Your task to perform on an android device: open app "Airtel Thanks" Image 0: 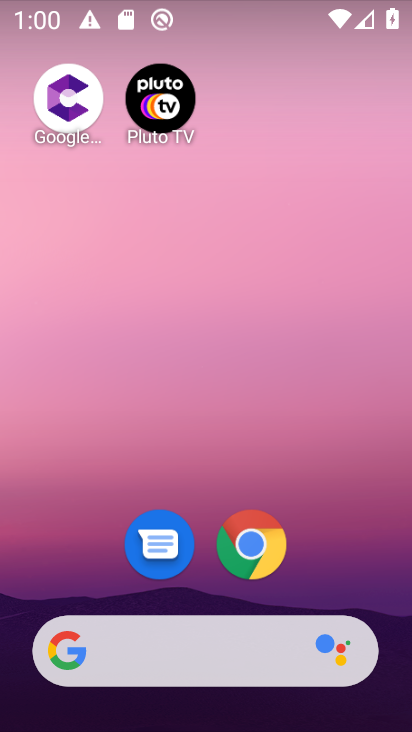
Step 0: drag from (366, 479) to (329, 24)
Your task to perform on an android device: open app "Airtel Thanks" Image 1: 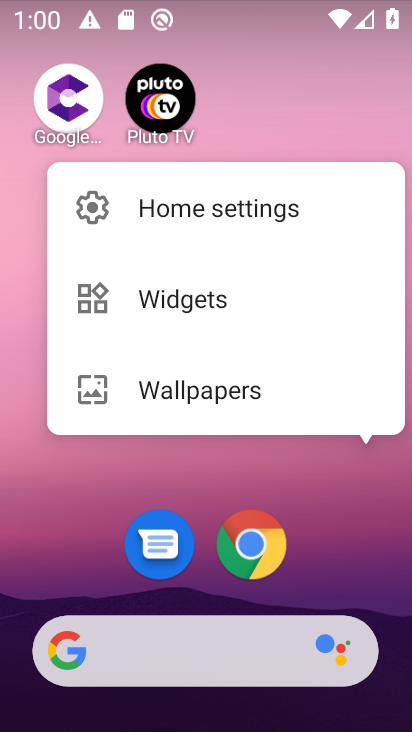
Step 1: press home button
Your task to perform on an android device: open app "Airtel Thanks" Image 2: 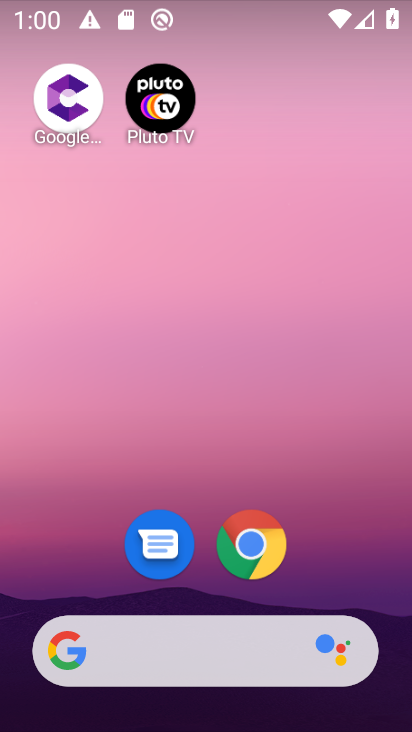
Step 2: drag from (383, 608) to (240, 44)
Your task to perform on an android device: open app "Airtel Thanks" Image 3: 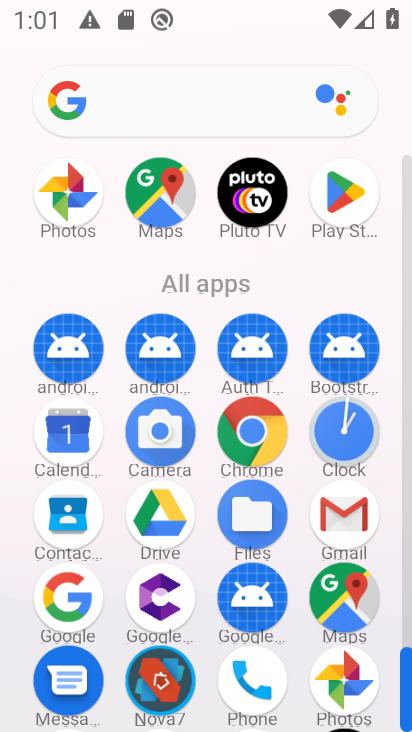
Step 3: click (343, 182)
Your task to perform on an android device: open app "Airtel Thanks" Image 4: 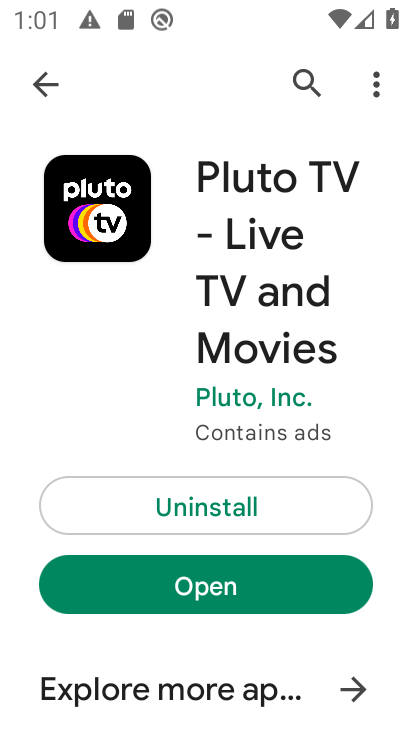
Step 4: press back button
Your task to perform on an android device: open app "Airtel Thanks" Image 5: 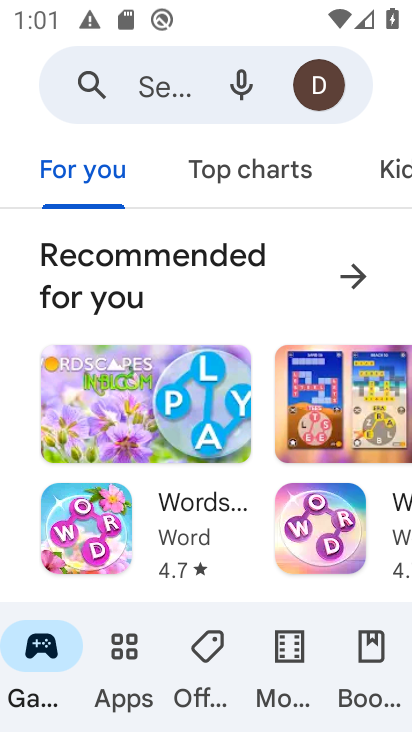
Step 5: click (142, 72)
Your task to perform on an android device: open app "Airtel Thanks" Image 6: 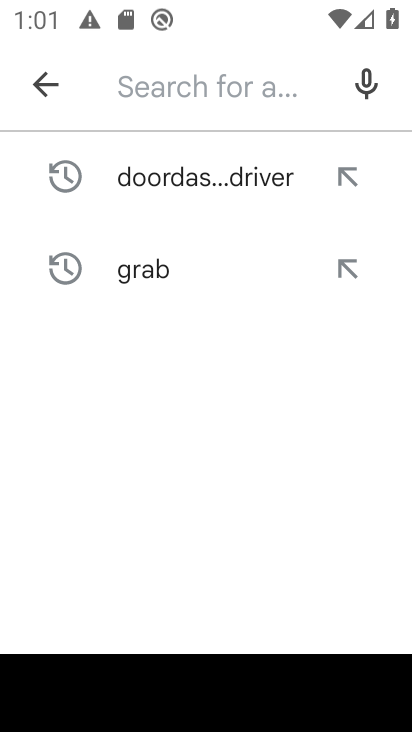
Step 6: type "Airtel Thanks"
Your task to perform on an android device: open app "Airtel Thanks" Image 7: 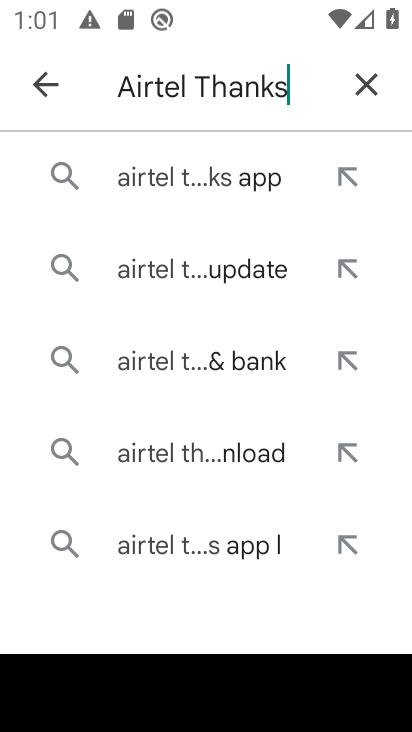
Step 7: click (156, 174)
Your task to perform on an android device: open app "Airtel Thanks" Image 8: 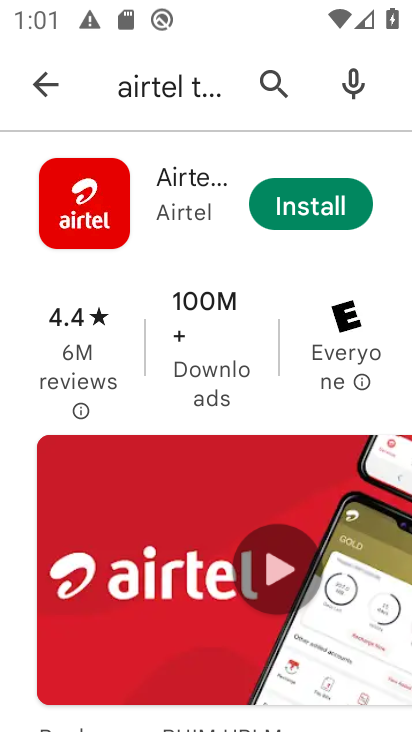
Step 8: task complete